Your task to perform on an android device: Open calendar and show me the second week of next month Image 0: 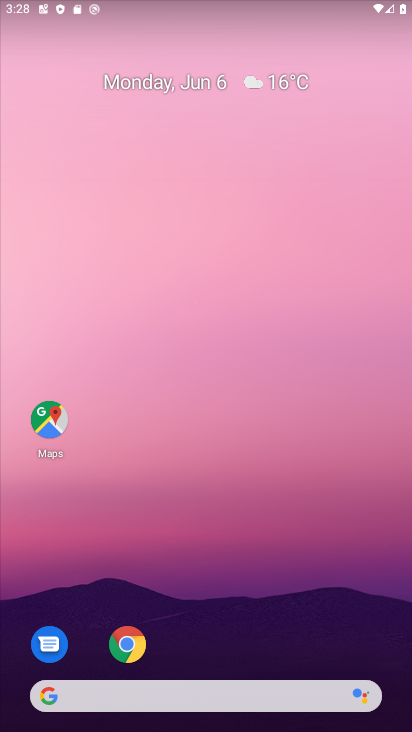
Step 0: drag from (238, 592) to (182, 45)
Your task to perform on an android device: Open calendar and show me the second week of next month Image 1: 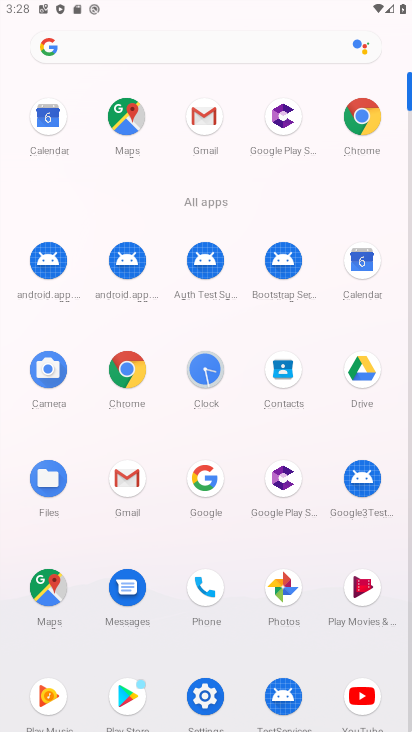
Step 1: click (352, 255)
Your task to perform on an android device: Open calendar and show me the second week of next month Image 2: 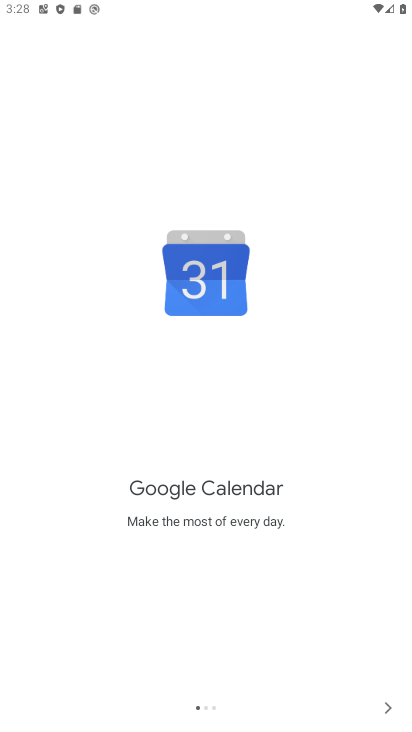
Step 2: click (392, 708)
Your task to perform on an android device: Open calendar and show me the second week of next month Image 3: 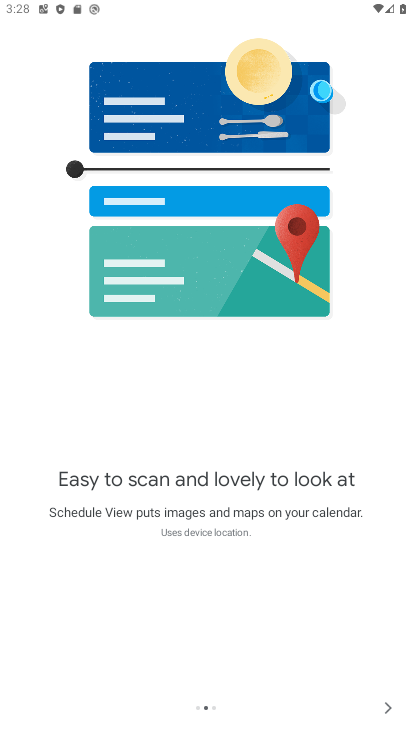
Step 3: click (387, 700)
Your task to perform on an android device: Open calendar and show me the second week of next month Image 4: 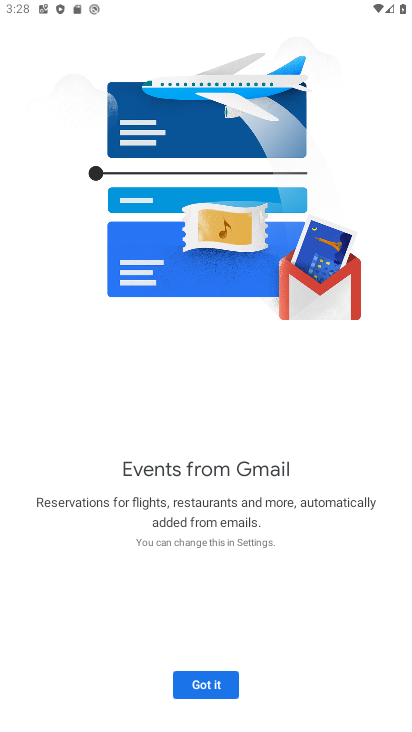
Step 4: click (153, 681)
Your task to perform on an android device: Open calendar and show me the second week of next month Image 5: 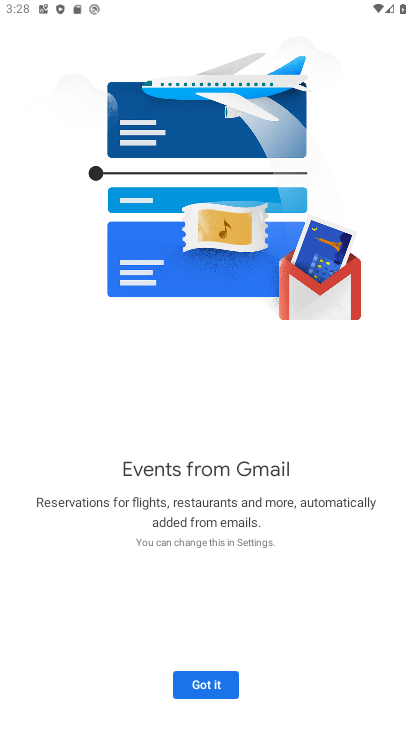
Step 5: click (188, 685)
Your task to perform on an android device: Open calendar and show me the second week of next month Image 6: 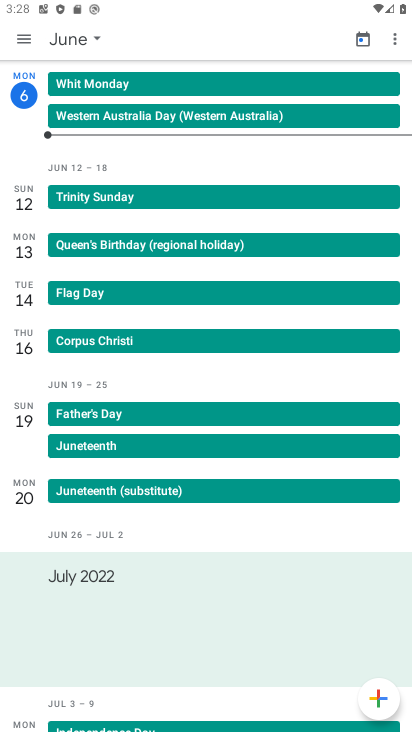
Step 6: click (76, 38)
Your task to perform on an android device: Open calendar and show me the second week of next month Image 7: 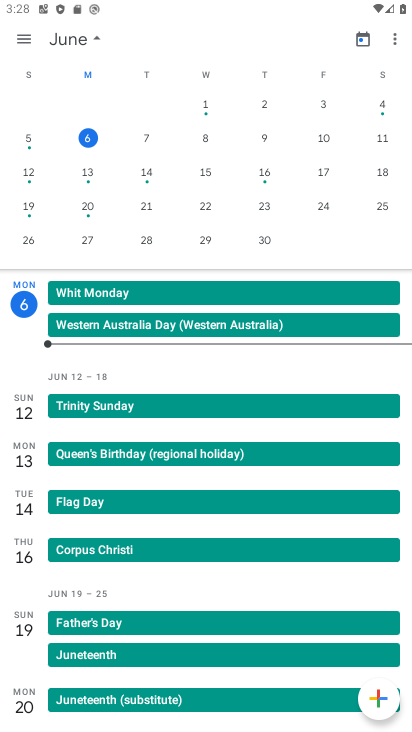
Step 7: drag from (372, 181) to (0, 178)
Your task to perform on an android device: Open calendar and show me the second week of next month Image 8: 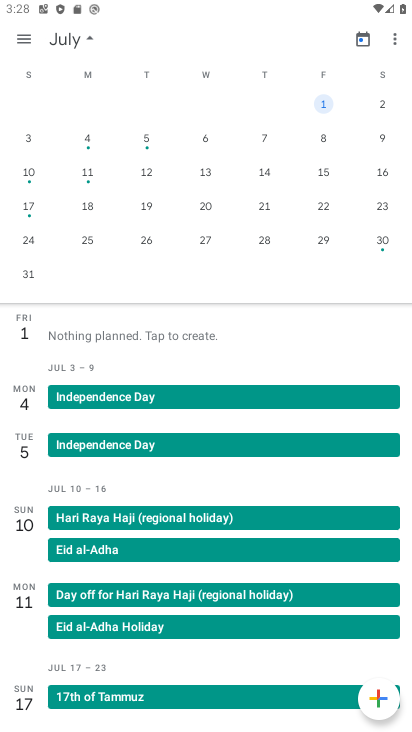
Step 8: click (30, 173)
Your task to perform on an android device: Open calendar and show me the second week of next month Image 9: 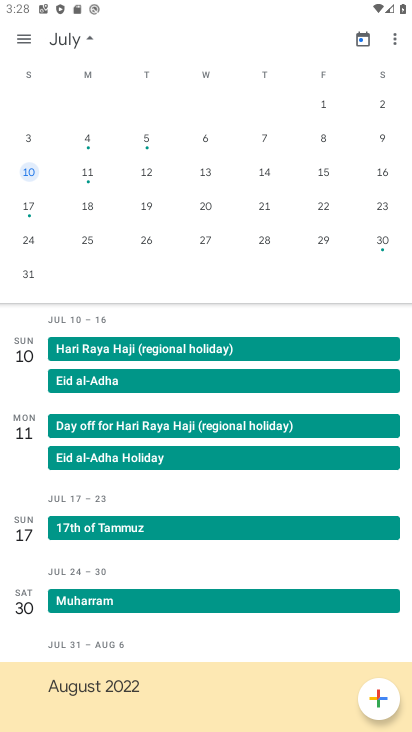
Step 9: click (23, 28)
Your task to perform on an android device: Open calendar and show me the second week of next month Image 10: 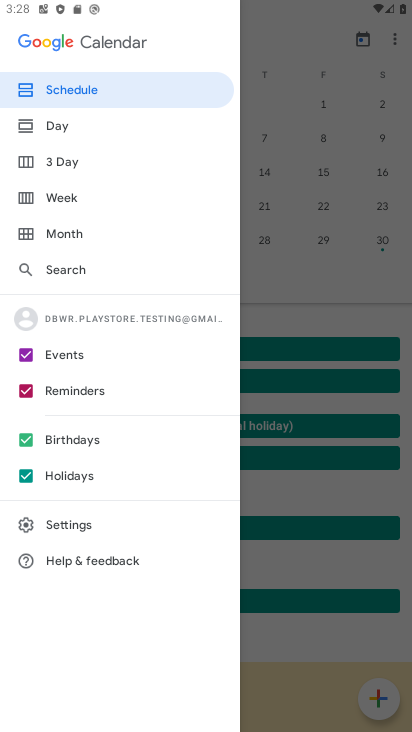
Step 10: click (86, 190)
Your task to perform on an android device: Open calendar and show me the second week of next month Image 11: 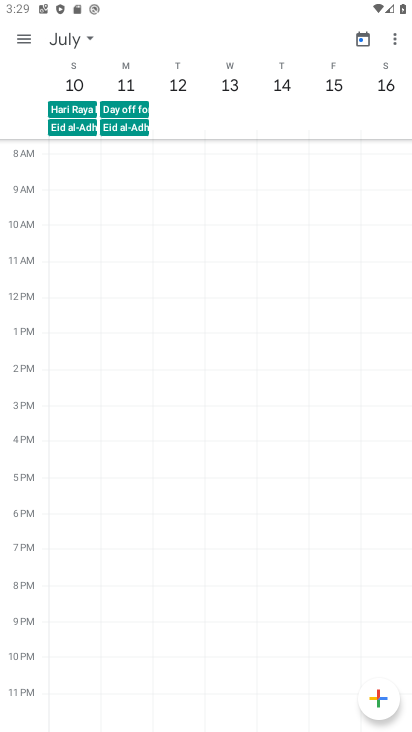
Step 11: task complete